Your task to perform on an android device: Open Google Maps and go to "Timeline" Image 0: 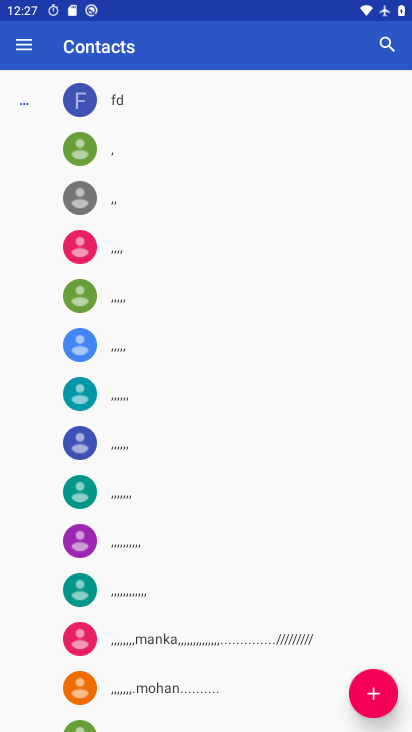
Step 0: press home button
Your task to perform on an android device: Open Google Maps and go to "Timeline" Image 1: 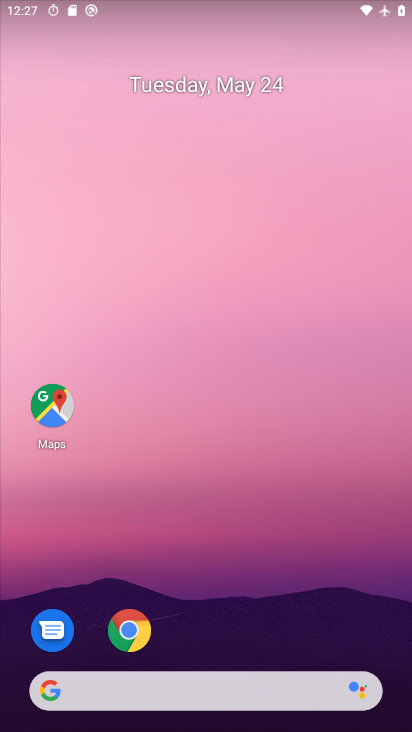
Step 1: click (49, 389)
Your task to perform on an android device: Open Google Maps and go to "Timeline" Image 2: 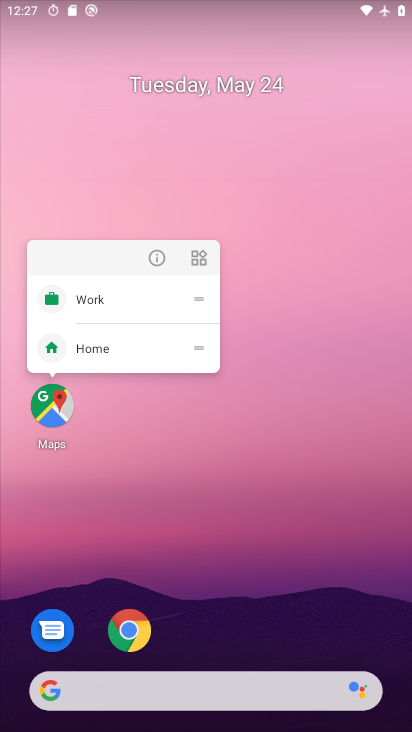
Step 2: click (69, 403)
Your task to perform on an android device: Open Google Maps and go to "Timeline" Image 3: 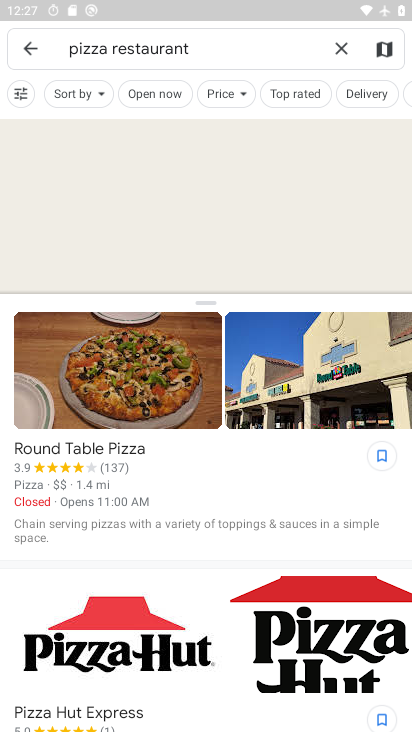
Step 3: click (25, 40)
Your task to perform on an android device: Open Google Maps and go to "Timeline" Image 4: 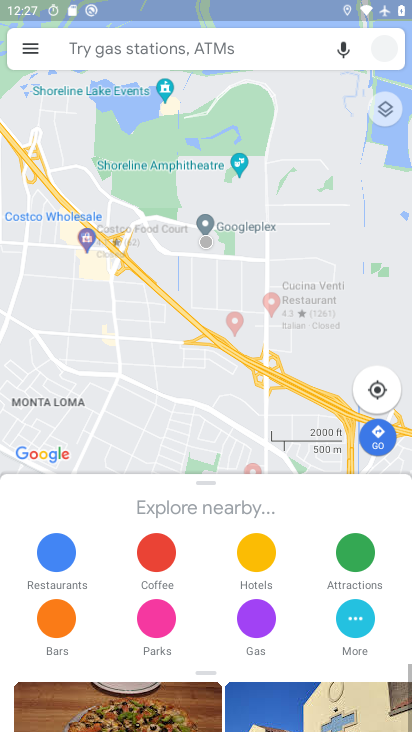
Step 4: click (29, 46)
Your task to perform on an android device: Open Google Maps and go to "Timeline" Image 5: 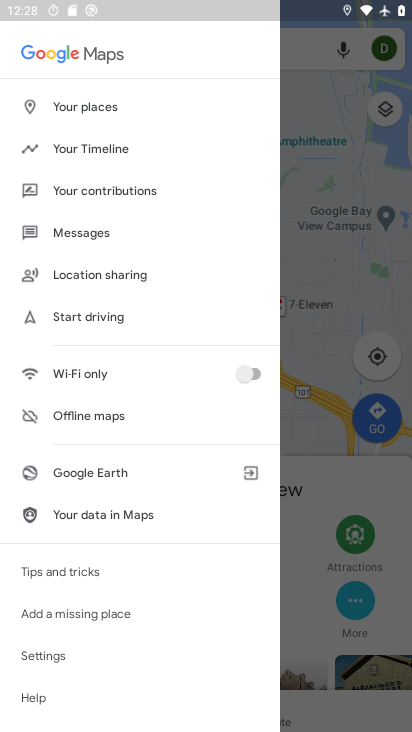
Step 5: click (100, 153)
Your task to perform on an android device: Open Google Maps and go to "Timeline" Image 6: 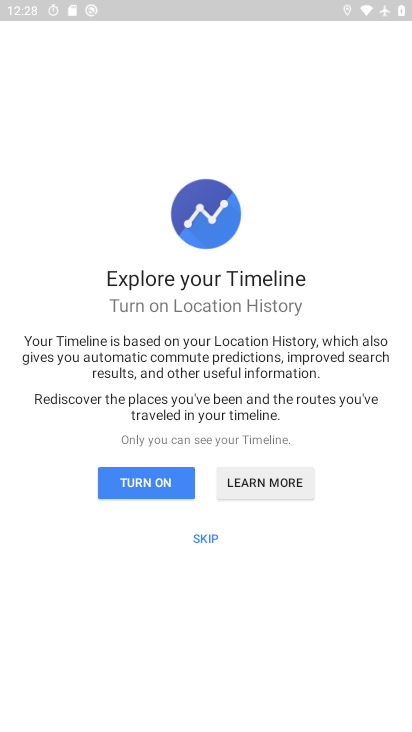
Step 6: click (207, 531)
Your task to perform on an android device: Open Google Maps and go to "Timeline" Image 7: 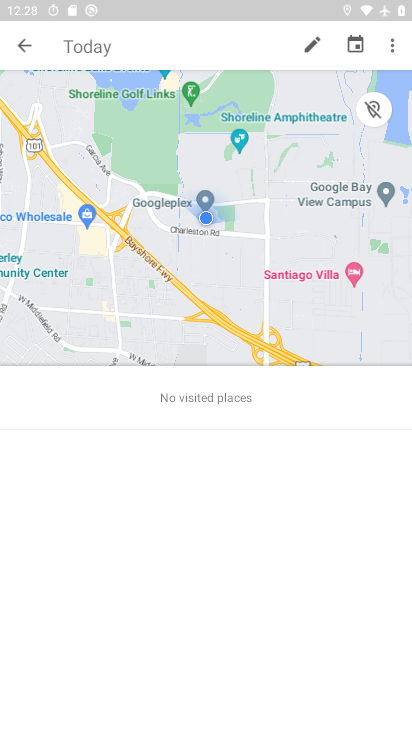
Step 7: task complete